Your task to perform on an android device: change notification settings in the gmail app Image 0: 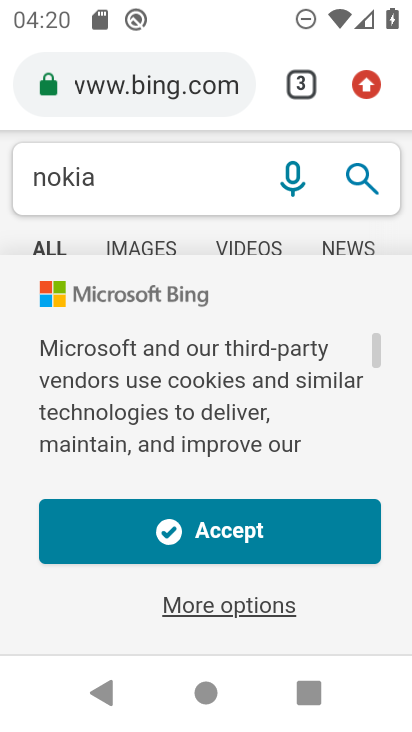
Step 0: press home button
Your task to perform on an android device: change notification settings in the gmail app Image 1: 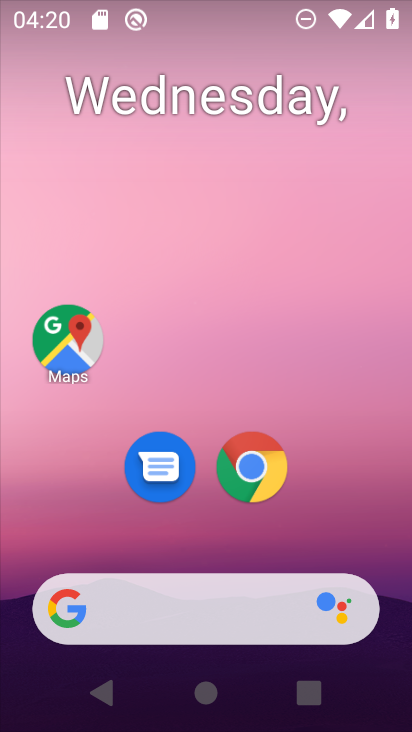
Step 1: drag from (391, 606) to (340, 145)
Your task to perform on an android device: change notification settings in the gmail app Image 2: 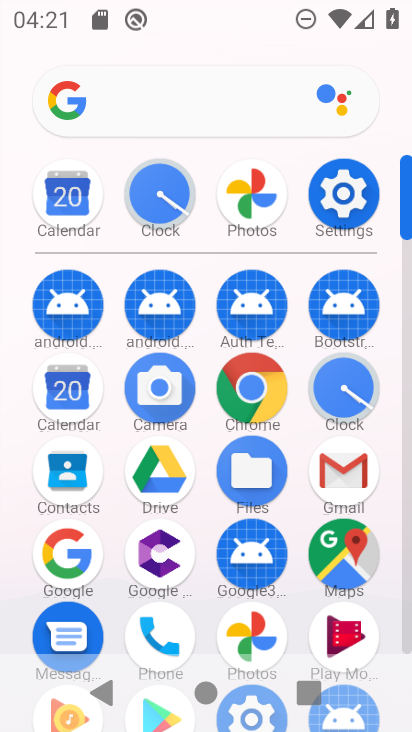
Step 2: click (407, 640)
Your task to perform on an android device: change notification settings in the gmail app Image 3: 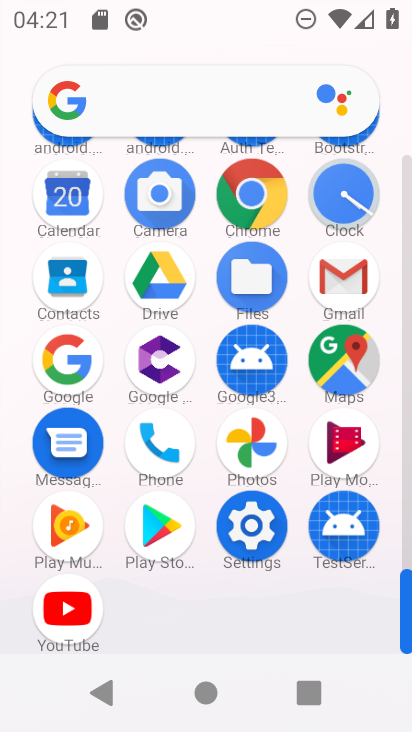
Step 3: click (343, 275)
Your task to perform on an android device: change notification settings in the gmail app Image 4: 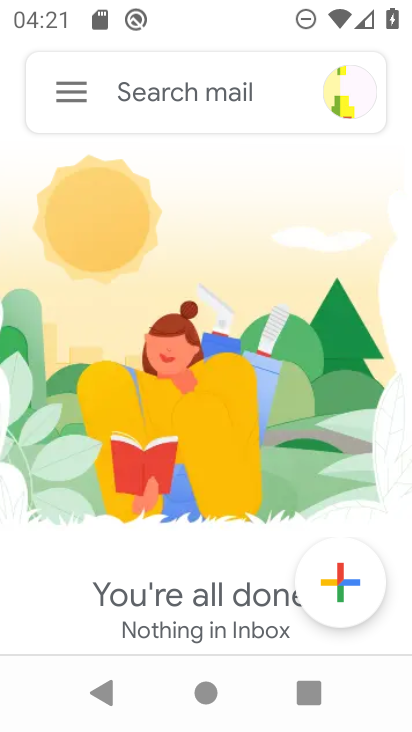
Step 4: click (70, 89)
Your task to perform on an android device: change notification settings in the gmail app Image 5: 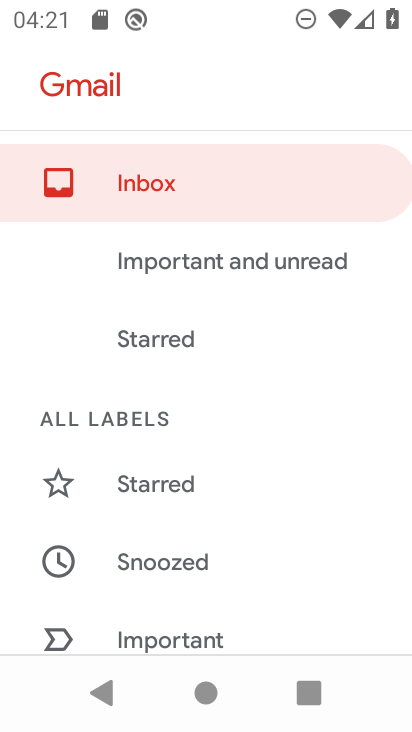
Step 5: drag from (311, 592) to (361, 274)
Your task to perform on an android device: change notification settings in the gmail app Image 6: 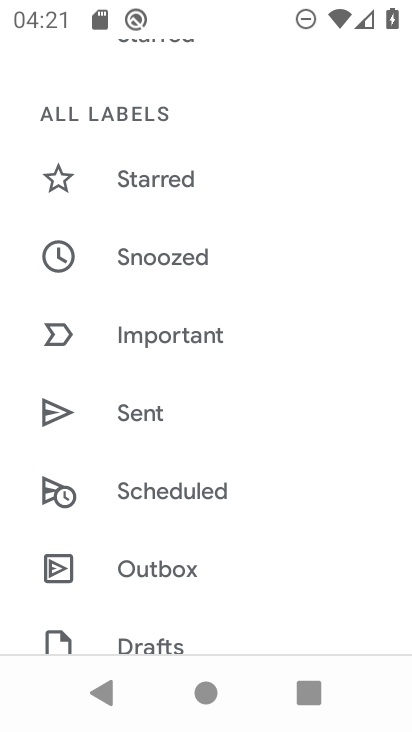
Step 6: drag from (276, 575) to (341, 223)
Your task to perform on an android device: change notification settings in the gmail app Image 7: 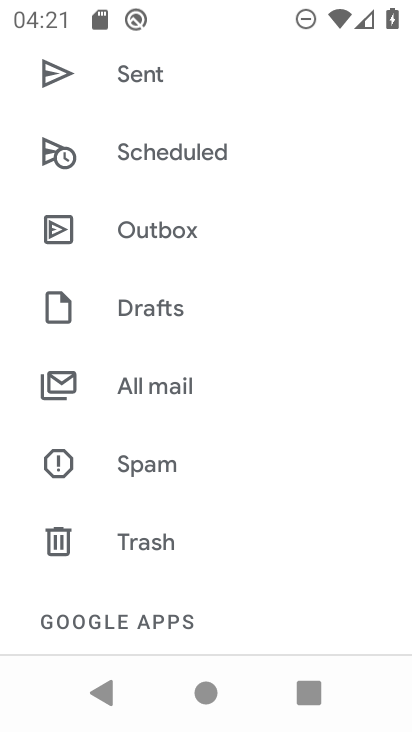
Step 7: drag from (266, 565) to (307, 243)
Your task to perform on an android device: change notification settings in the gmail app Image 8: 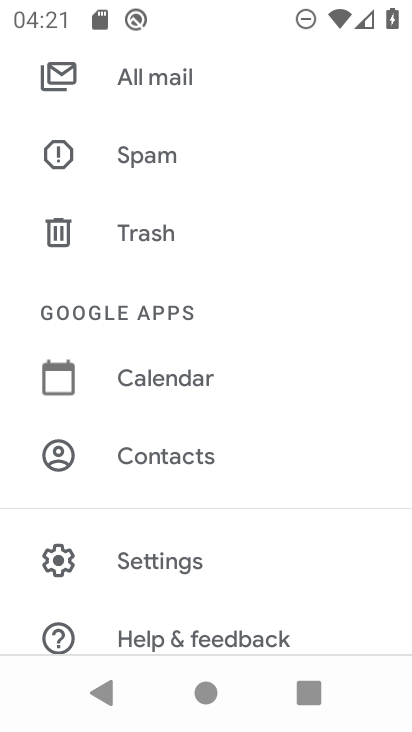
Step 8: click (144, 556)
Your task to perform on an android device: change notification settings in the gmail app Image 9: 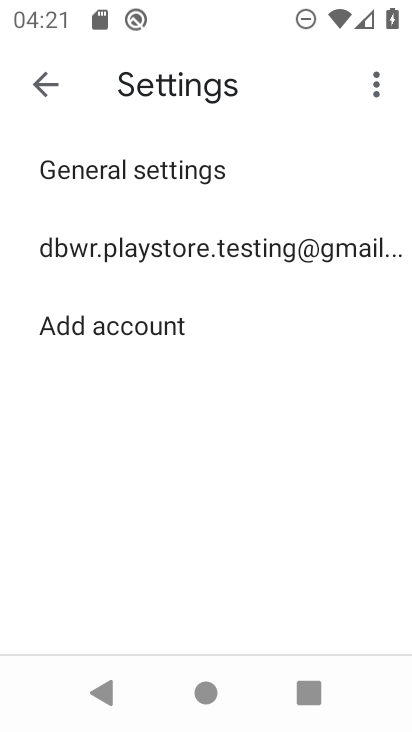
Step 9: click (159, 244)
Your task to perform on an android device: change notification settings in the gmail app Image 10: 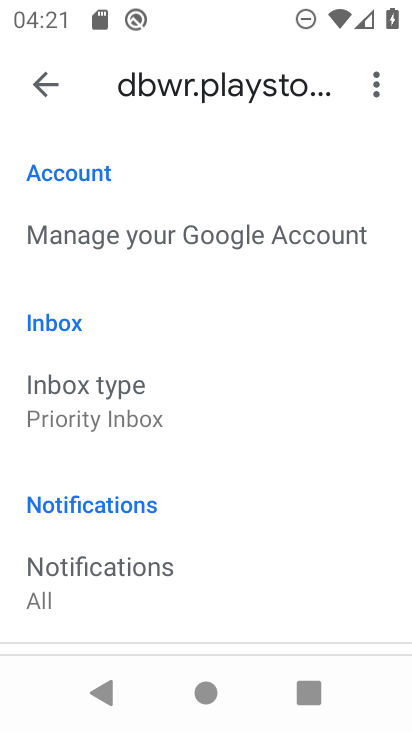
Step 10: drag from (241, 520) to (291, 264)
Your task to perform on an android device: change notification settings in the gmail app Image 11: 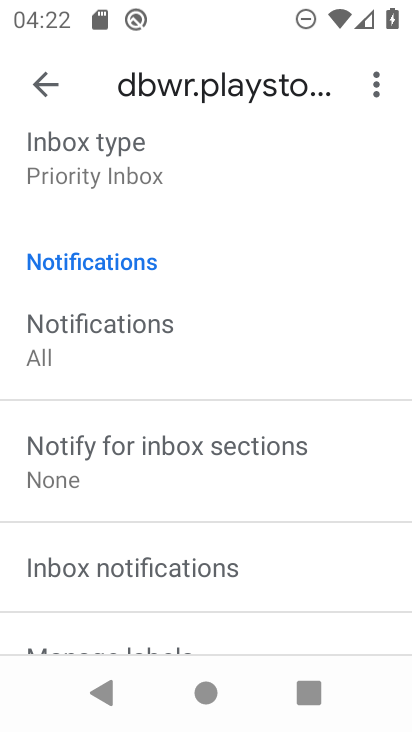
Step 11: drag from (286, 550) to (323, 321)
Your task to perform on an android device: change notification settings in the gmail app Image 12: 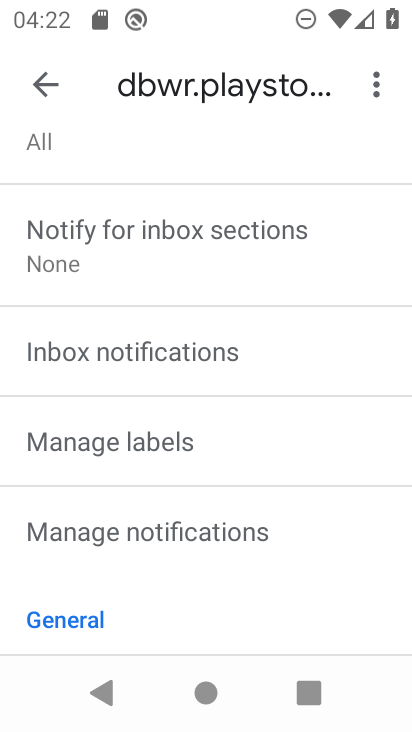
Step 12: click (103, 525)
Your task to perform on an android device: change notification settings in the gmail app Image 13: 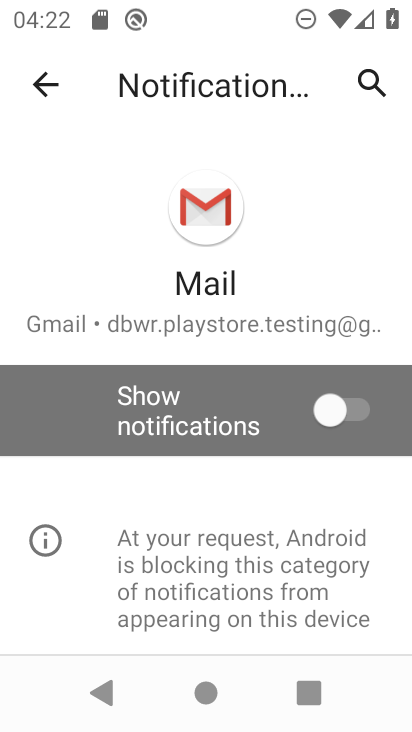
Step 13: click (357, 417)
Your task to perform on an android device: change notification settings in the gmail app Image 14: 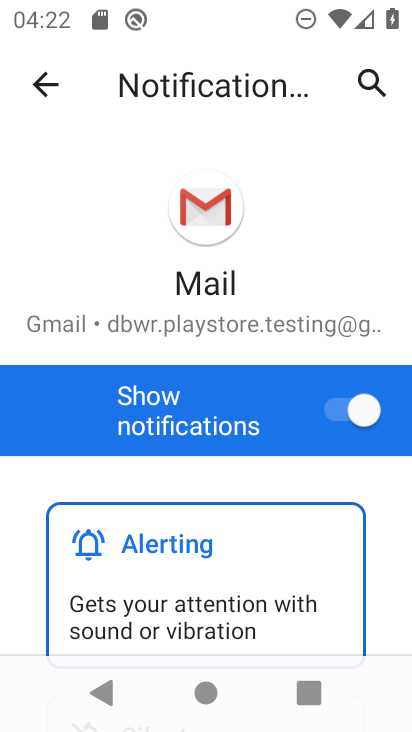
Step 14: task complete